Your task to perform on an android device: add a contact in the contacts app Image 0: 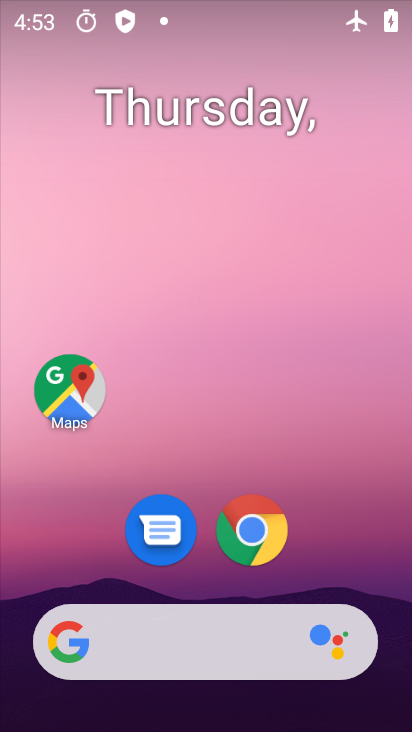
Step 0: drag from (358, 670) to (286, 9)
Your task to perform on an android device: add a contact in the contacts app Image 1: 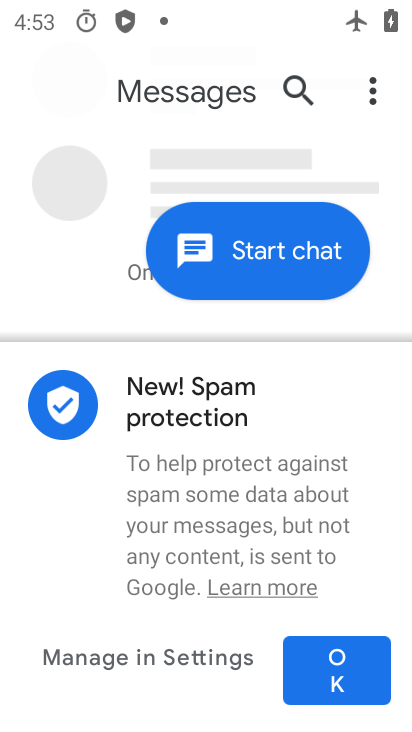
Step 1: press home button
Your task to perform on an android device: add a contact in the contacts app Image 2: 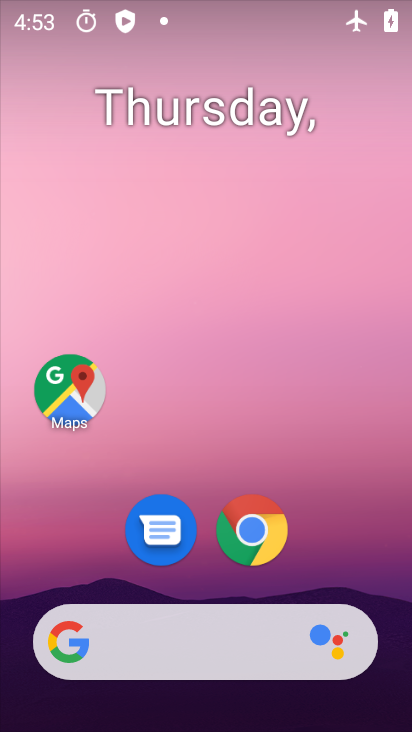
Step 2: drag from (276, 549) to (292, 6)
Your task to perform on an android device: add a contact in the contacts app Image 3: 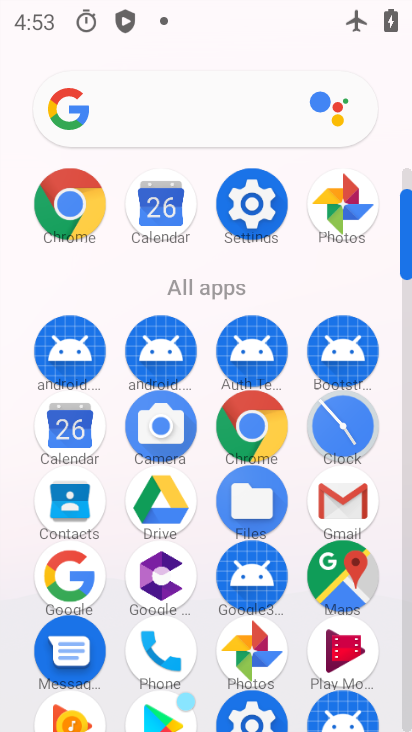
Step 3: click (77, 498)
Your task to perform on an android device: add a contact in the contacts app Image 4: 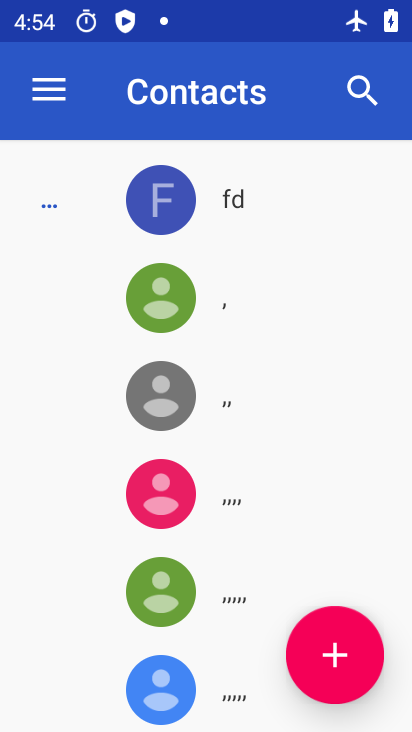
Step 4: click (322, 647)
Your task to perform on an android device: add a contact in the contacts app Image 5: 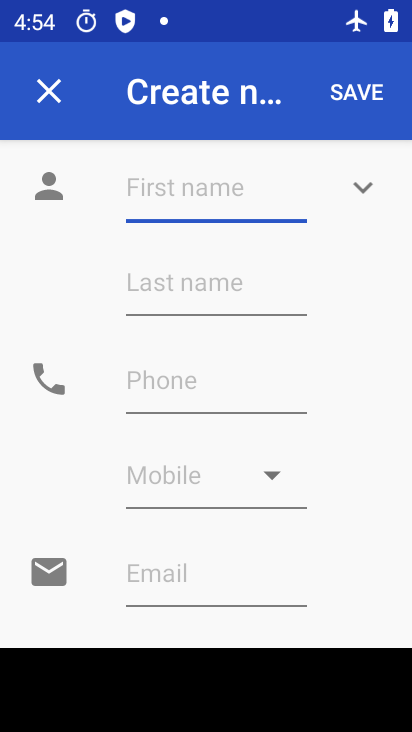
Step 5: type ""
Your task to perform on an android device: add a contact in the contacts app Image 6: 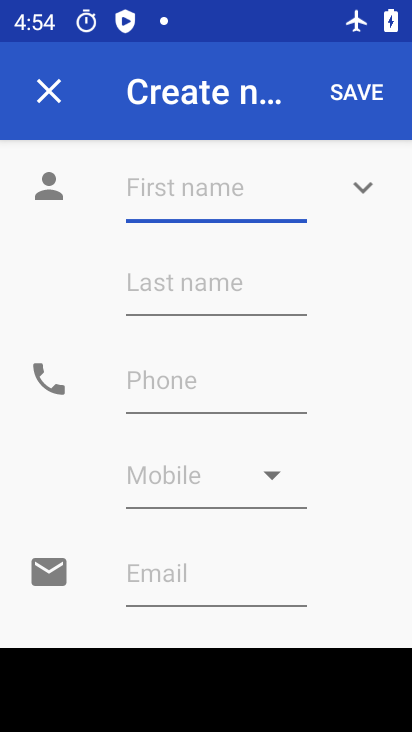
Step 6: type "kjkkjgjfjf"
Your task to perform on an android device: add a contact in the contacts app Image 7: 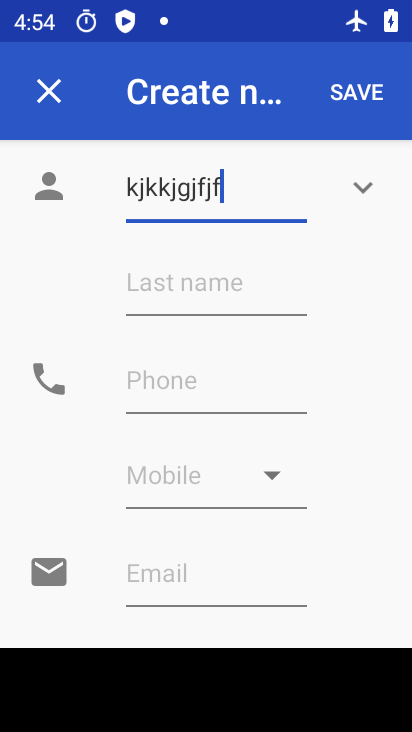
Step 7: click (202, 414)
Your task to perform on an android device: add a contact in the contacts app Image 8: 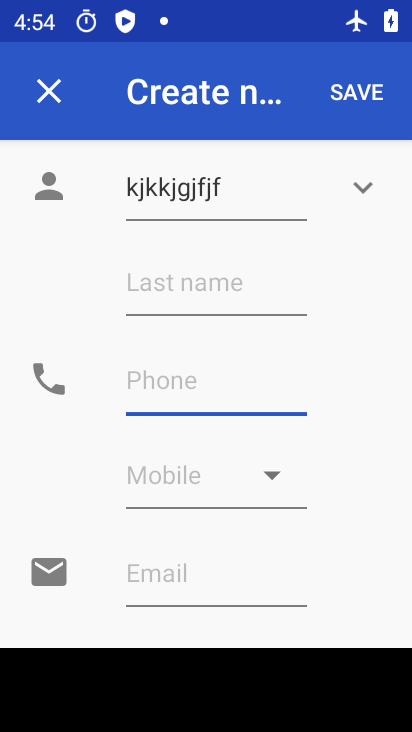
Step 8: type "9897667788"
Your task to perform on an android device: add a contact in the contacts app Image 9: 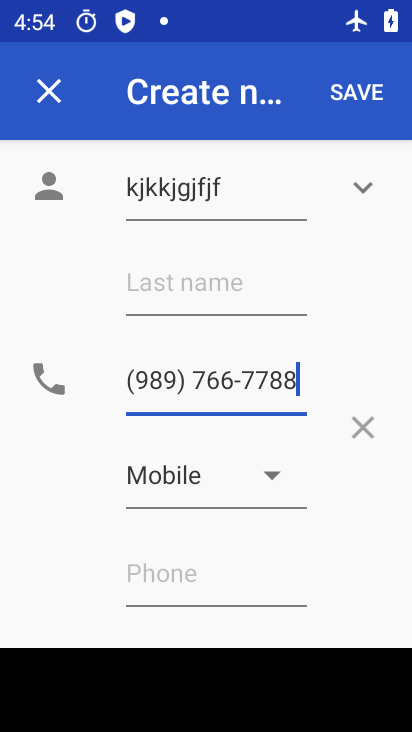
Step 9: click (354, 94)
Your task to perform on an android device: add a contact in the contacts app Image 10: 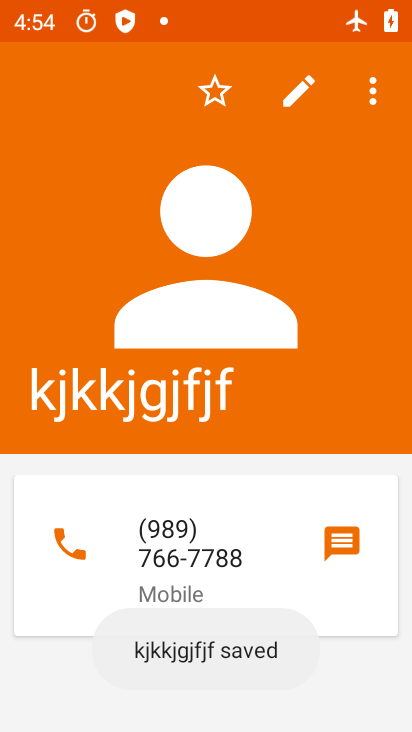
Step 10: task complete